Your task to perform on an android device: check data usage Image 0: 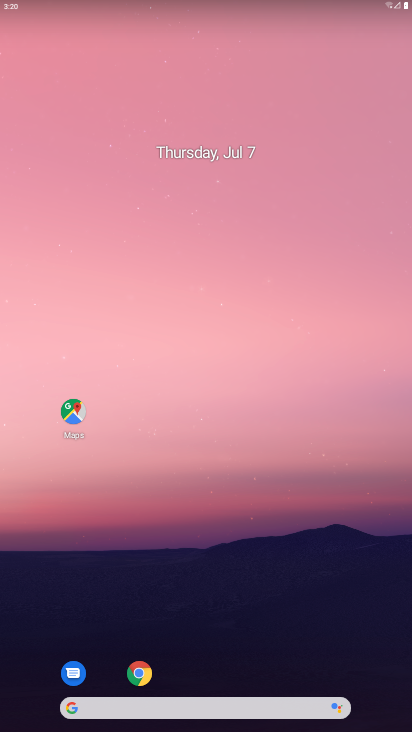
Step 0: click (142, 678)
Your task to perform on an android device: check data usage Image 1: 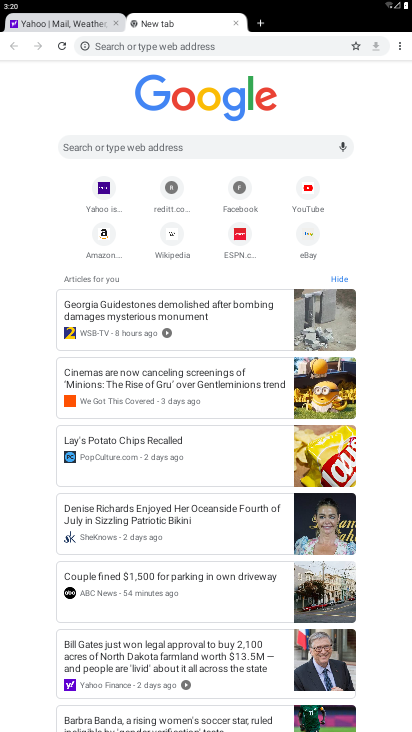
Step 1: press home button
Your task to perform on an android device: check data usage Image 2: 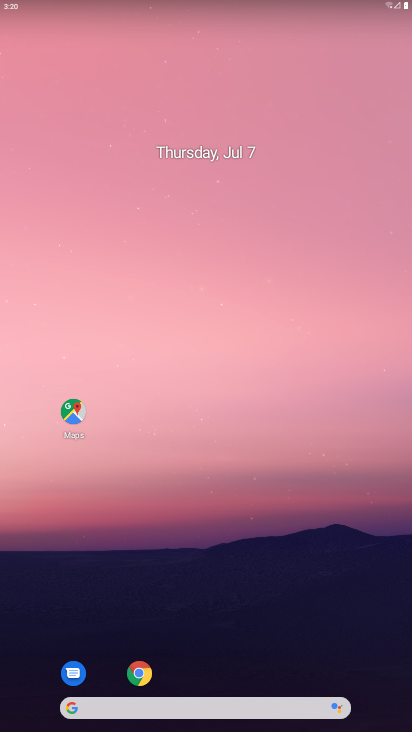
Step 2: drag from (179, 699) to (239, 112)
Your task to perform on an android device: check data usage Image 3: 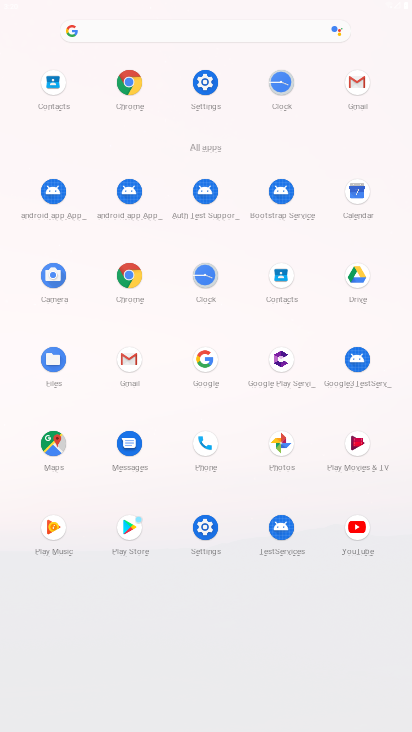
Step 3: click (202, 84)
Your task to perform on an android device: check data usage Image 4: 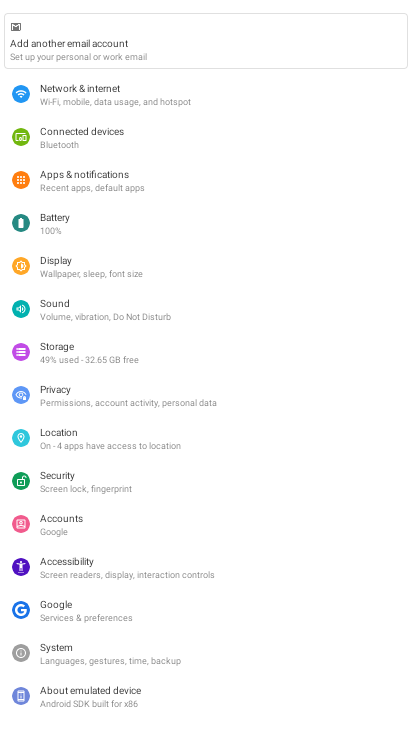
Step 4: click (118, 91)
Your task to perform on an android device: check data usage Image 5: 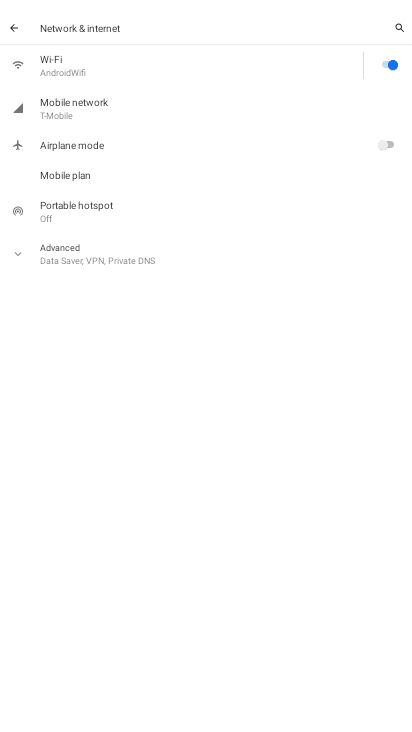
Step 5: click (78, 64)
Your task to perform on an android device: check data usage Image 6: 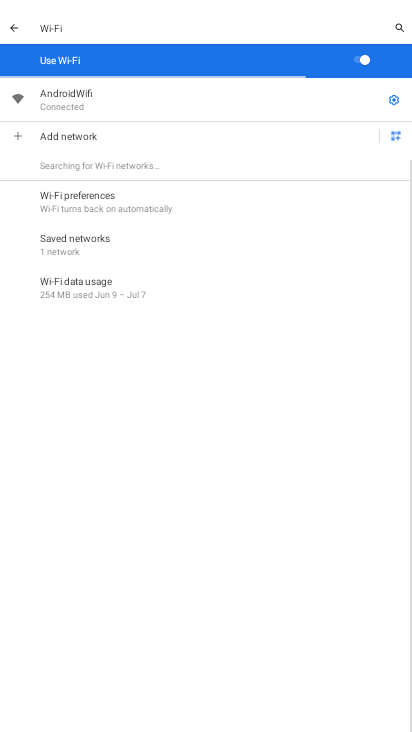
Step 6: click (109, 285)
Your task to perform on an android device: check data usage Image 7: 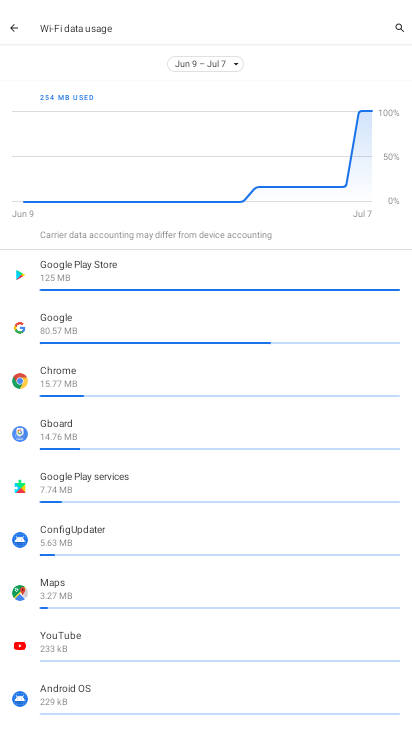
Step 7: task complete